Your task to perform on an android device: Clear the cart on amazon. Search for logitech g502 on amazon, select the first entry, add it to the cart, then select checkout. Image 0: 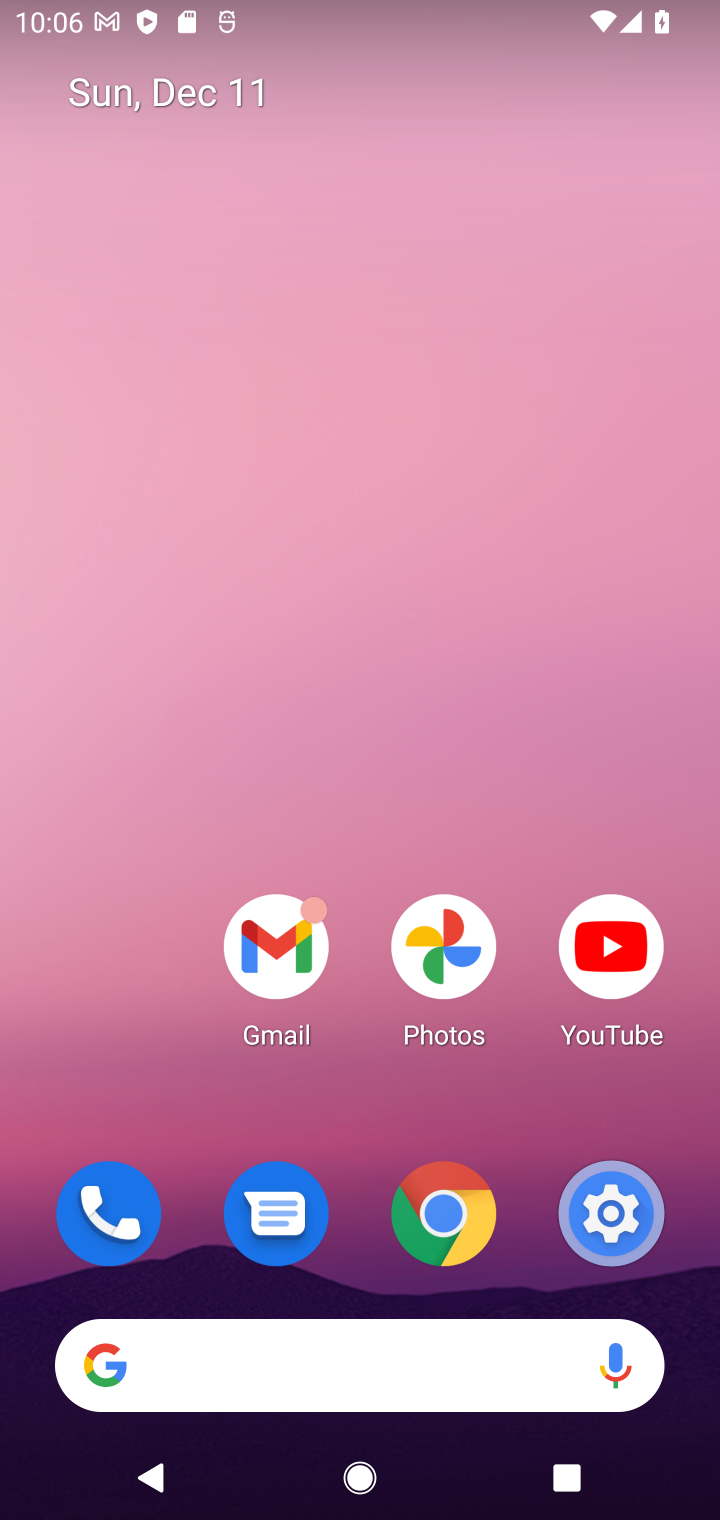
Step 0: click (452, 1391)
Your task to perform on an android device: Clear the cart on amazon. Search for logitech g502 on amazon, select the first entry, add it to the cart, then select checkout. Image 1: 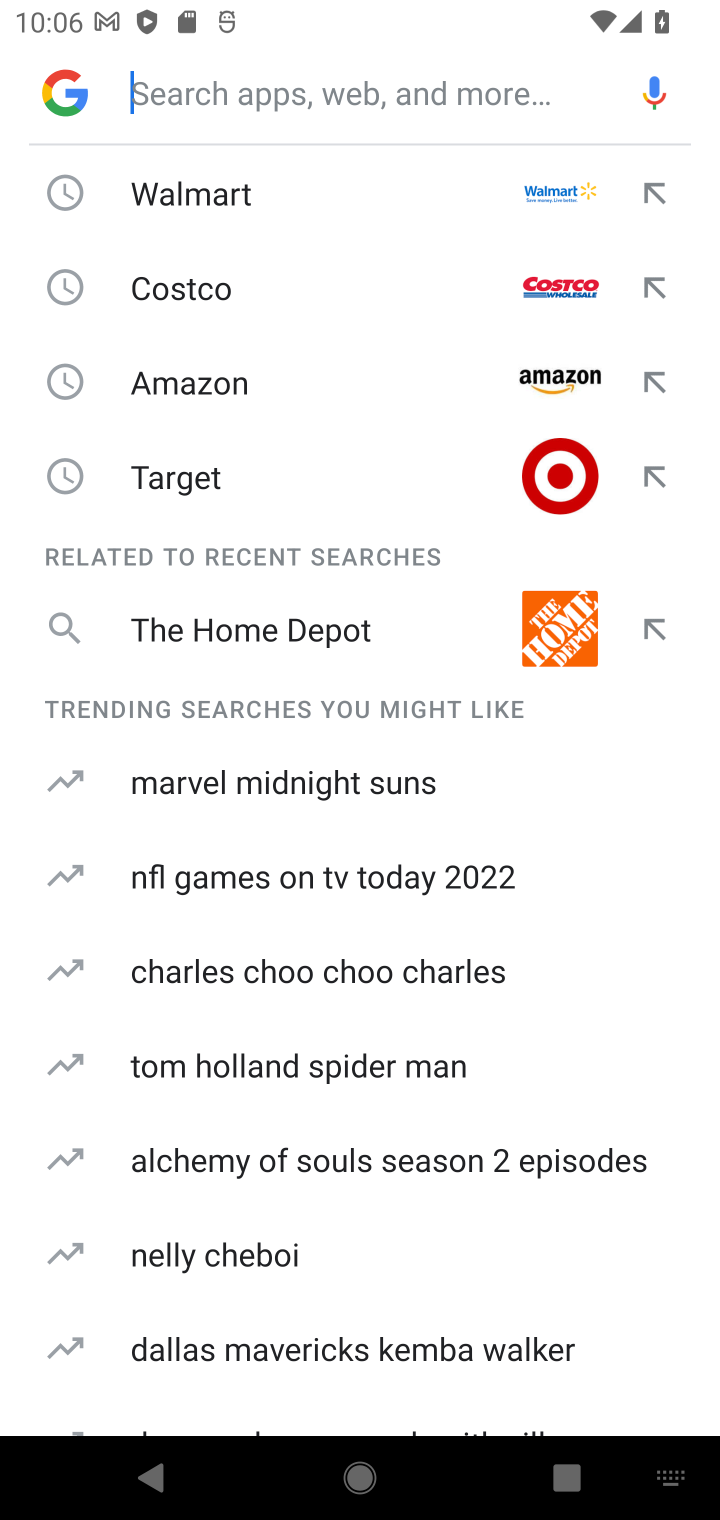
Step 1: click (340, 375)
Your task to perform on an android device: Clear the cart on amazon. Search for logitech g502 on amazon, select the first entry, add it to the cart, then select checkout. Image 2: 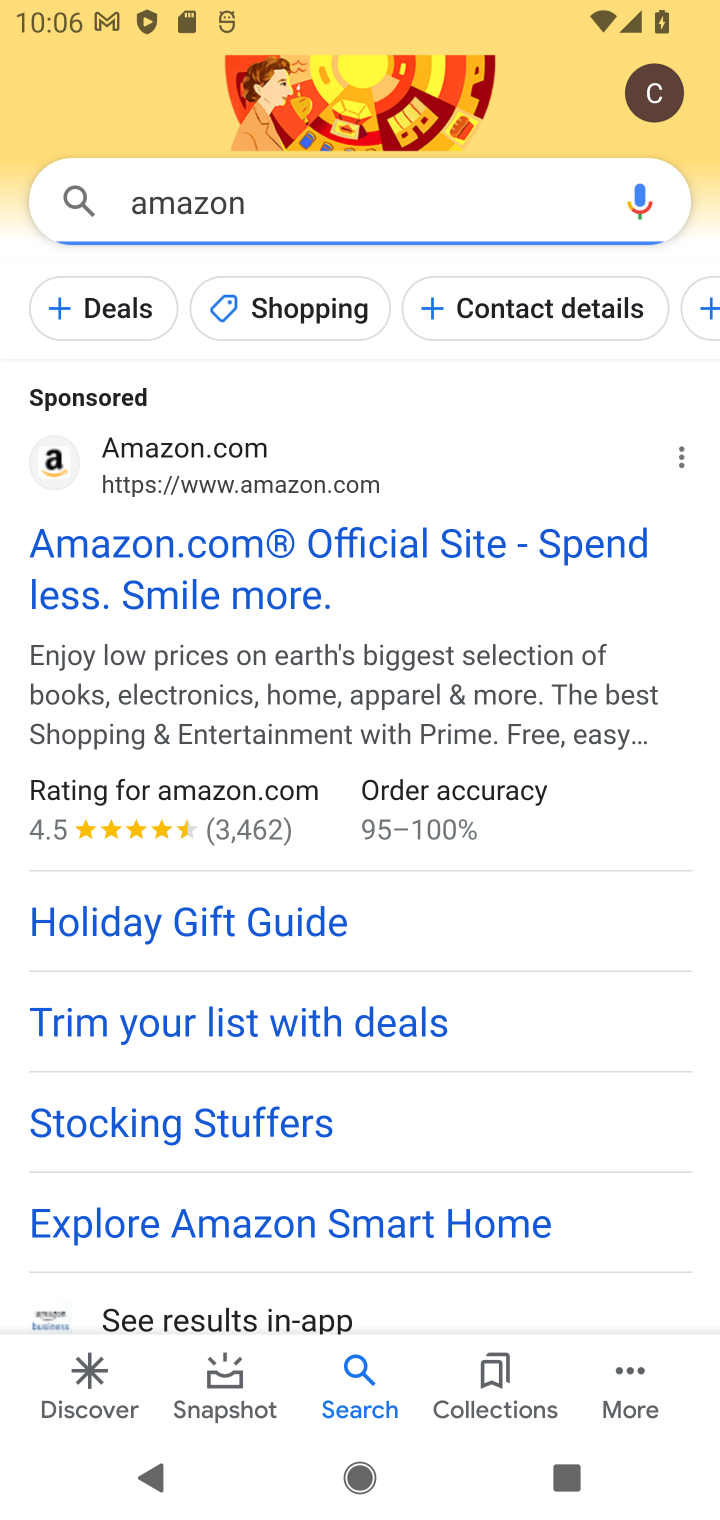
Step 2: click (324, 556)
Your task to perform on an android device: Clear the cart on amazon. Search for logitech g502 on amazon, select the first entry, add it to the cart, then select checkout. Image 3: 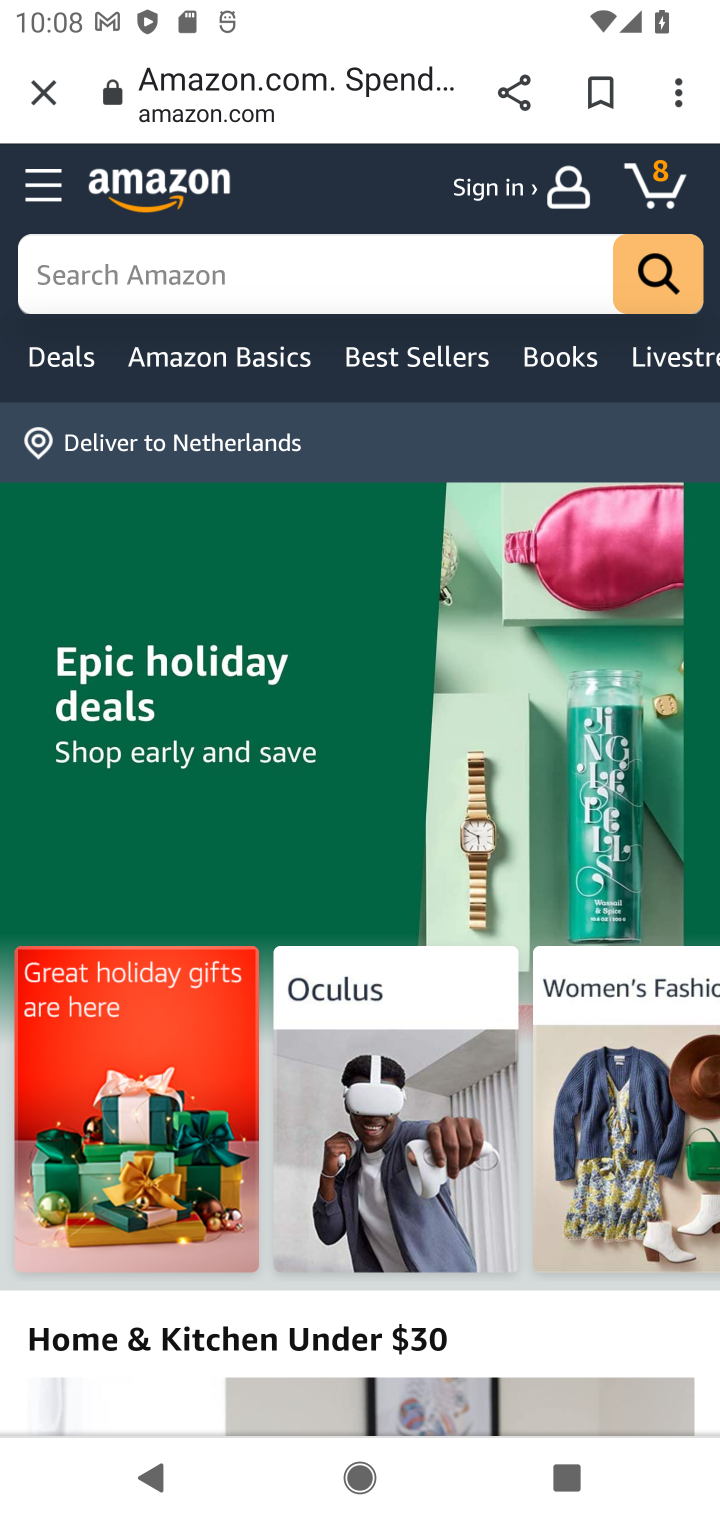
Step 3: click (419, 284)
Your task to perform on an android device: Clear the cart on amazon. Search for logitech g502 on amazon, select the first entry, add it to the cart, then select checkout. Image 4: 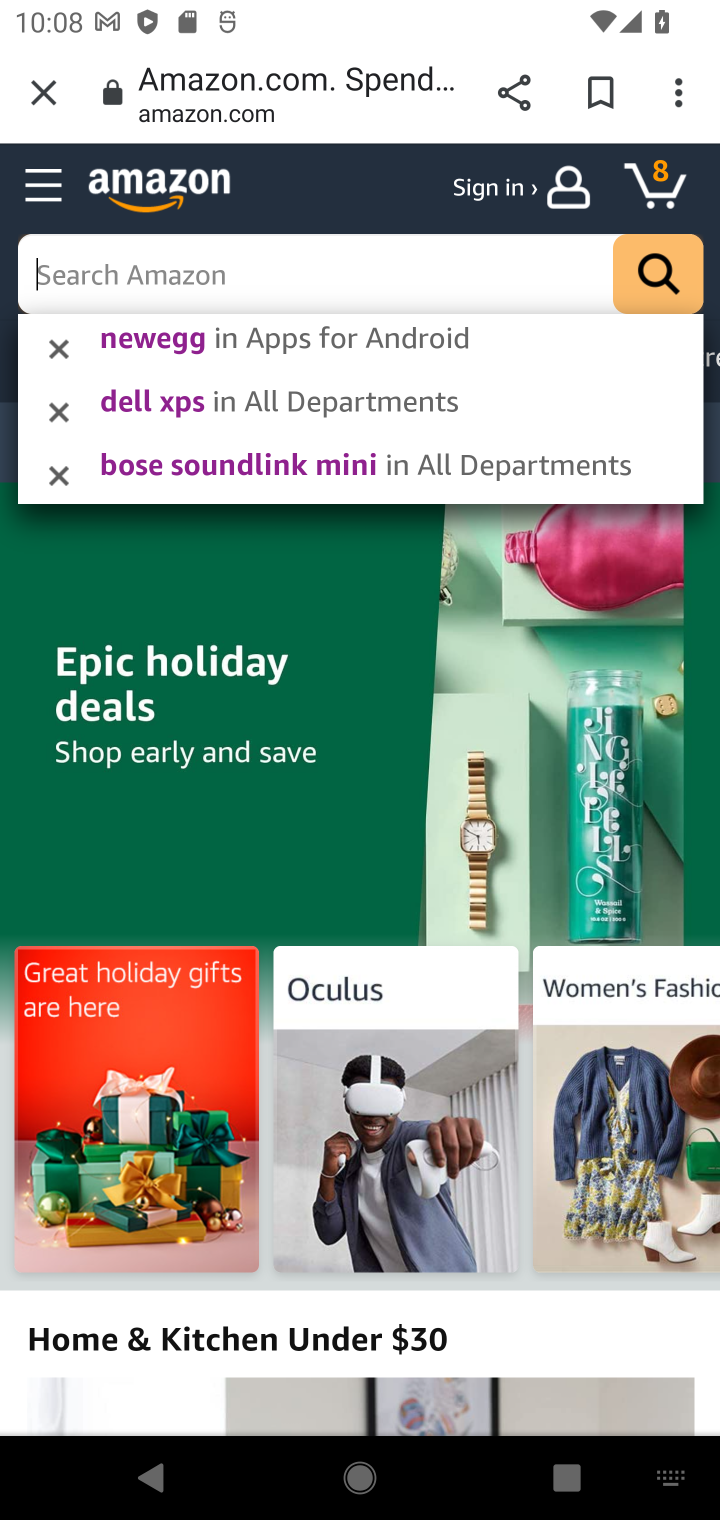
Step 4: type "logiitech g502"
Your task to perform on an android device: Clear the cart on amazon. Search for logitech g502 on amazon, select the first entry, add it to the cart, then select checkout. Image 5: 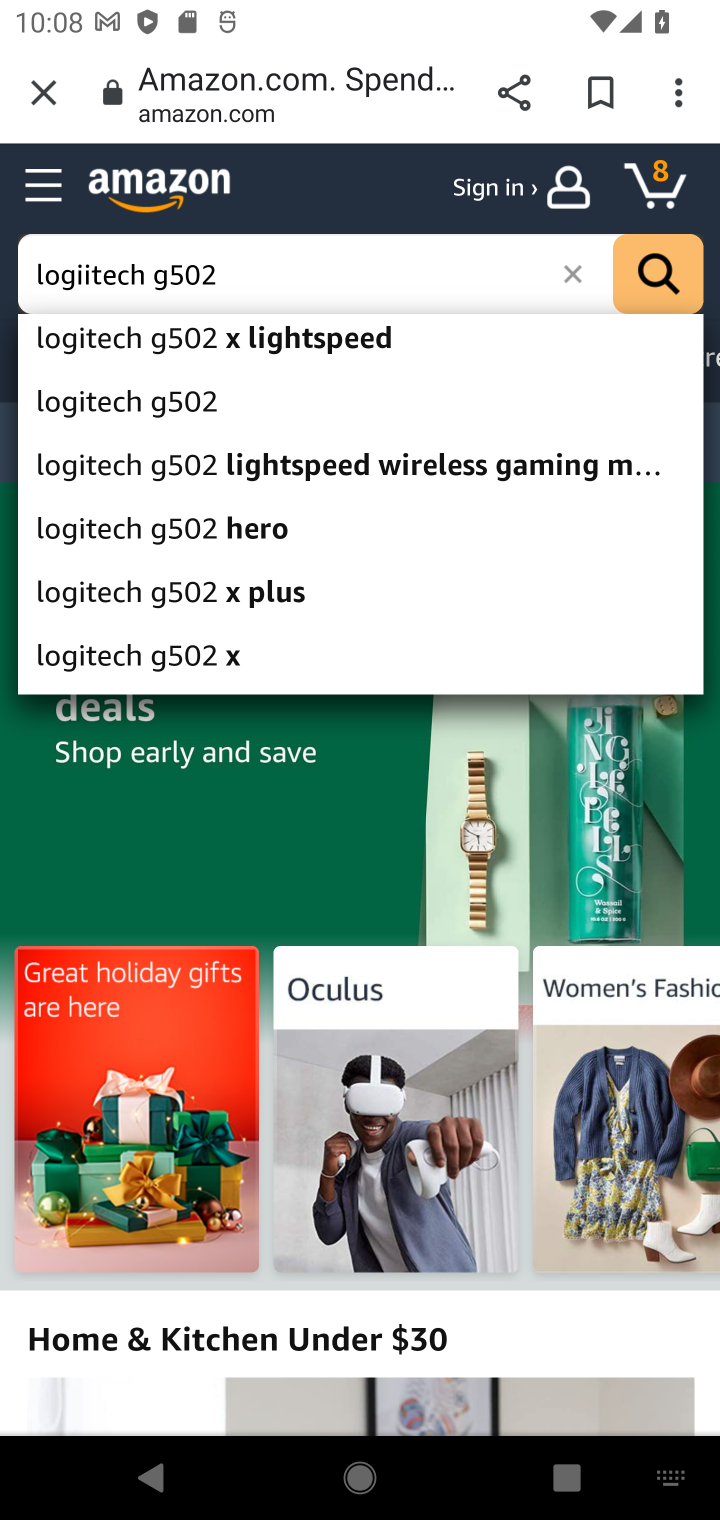
Step 5: click (134, 407)
Your task to perform on an android device: Clear the cart on amazon. Search for logitech g502 on amazon, select the first entry, add it to the cart, then select checkout. Image 6: 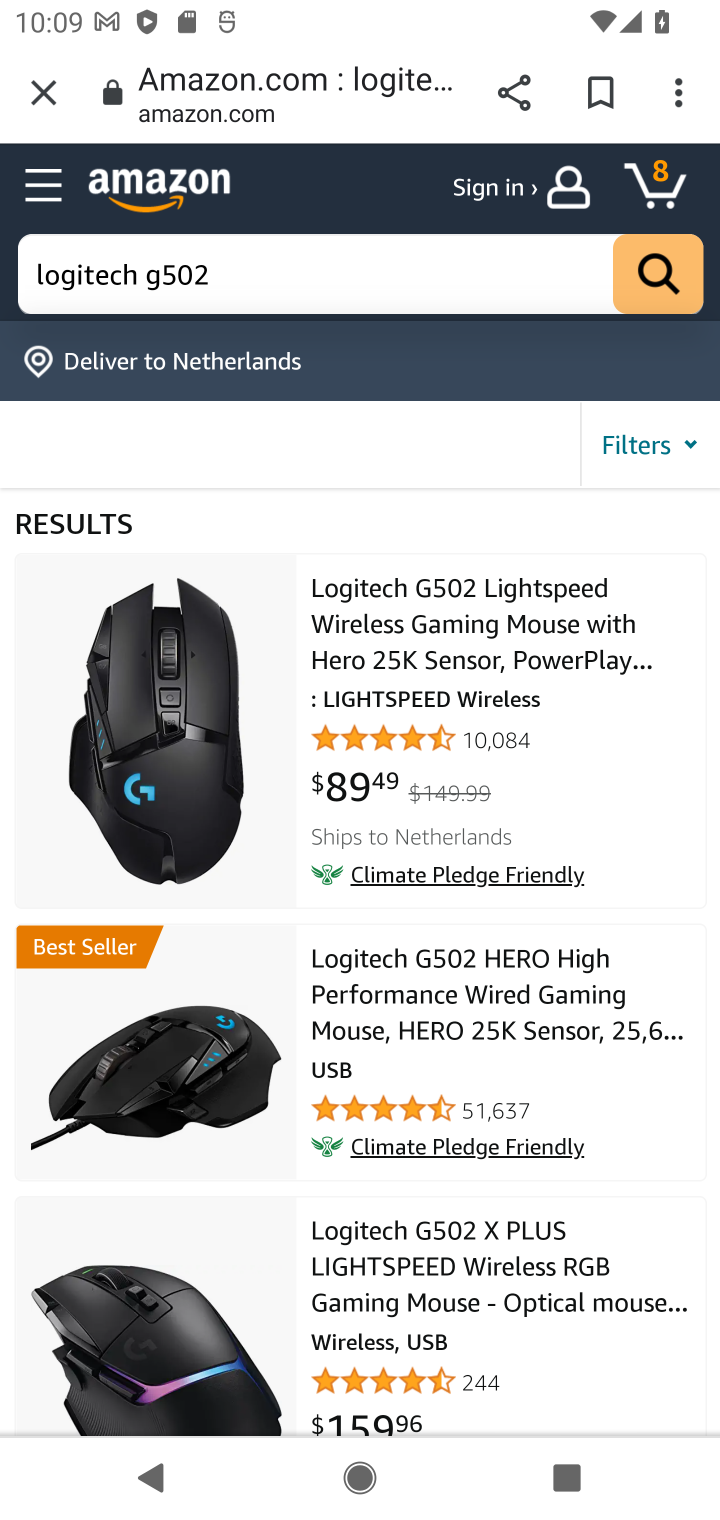
Step 6: click (543, 700)
Your task to perform on an android device: Clear the cart on amazon. Search for logitech g502 on amazon, select the first entry, add it to the cart, then select checkout. Image 7: 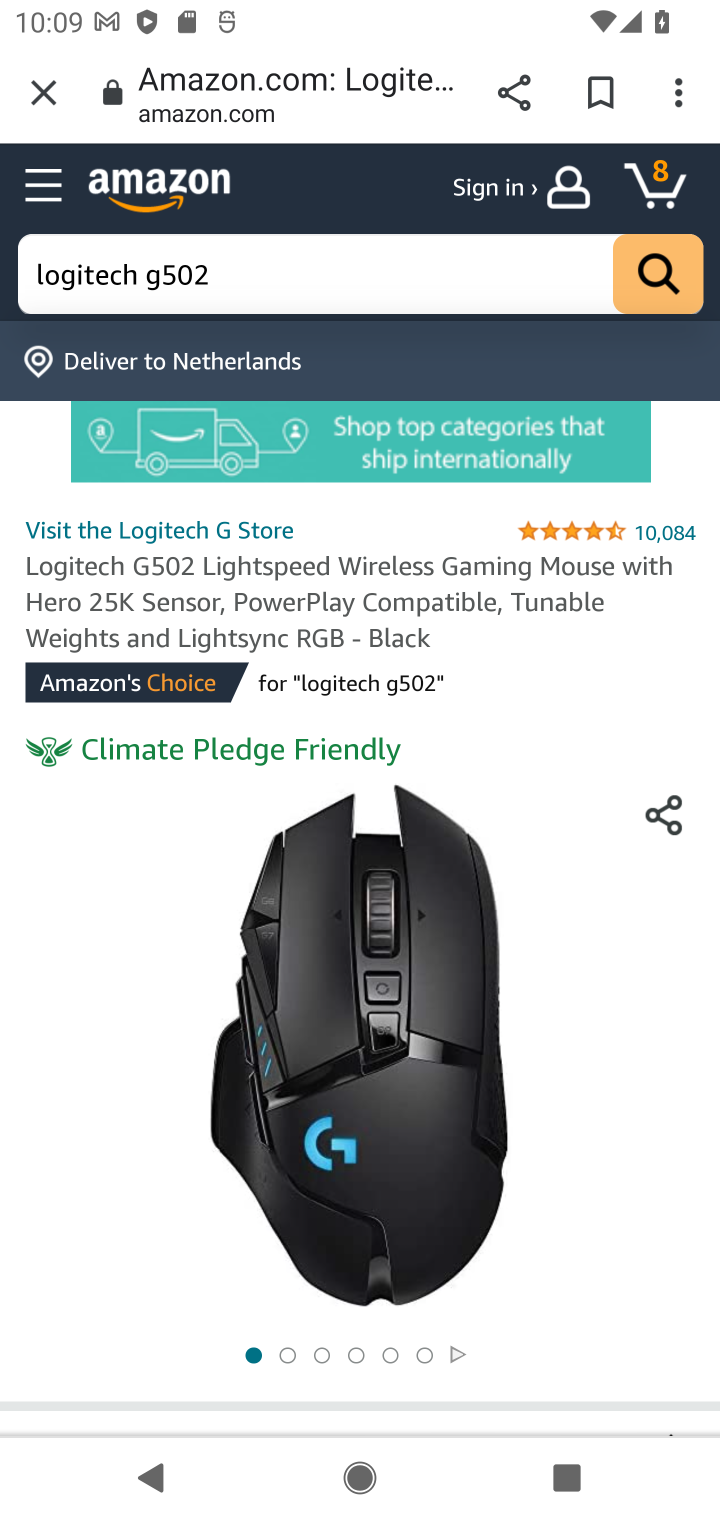
Step 7: drag from (339, 1078) to (228, 88)
Your task to perform on an android device: Clear the cart on amazon. Search for logitech g502 on amazon, select the first entry, add it to the cart, then select checkout. Image 8: 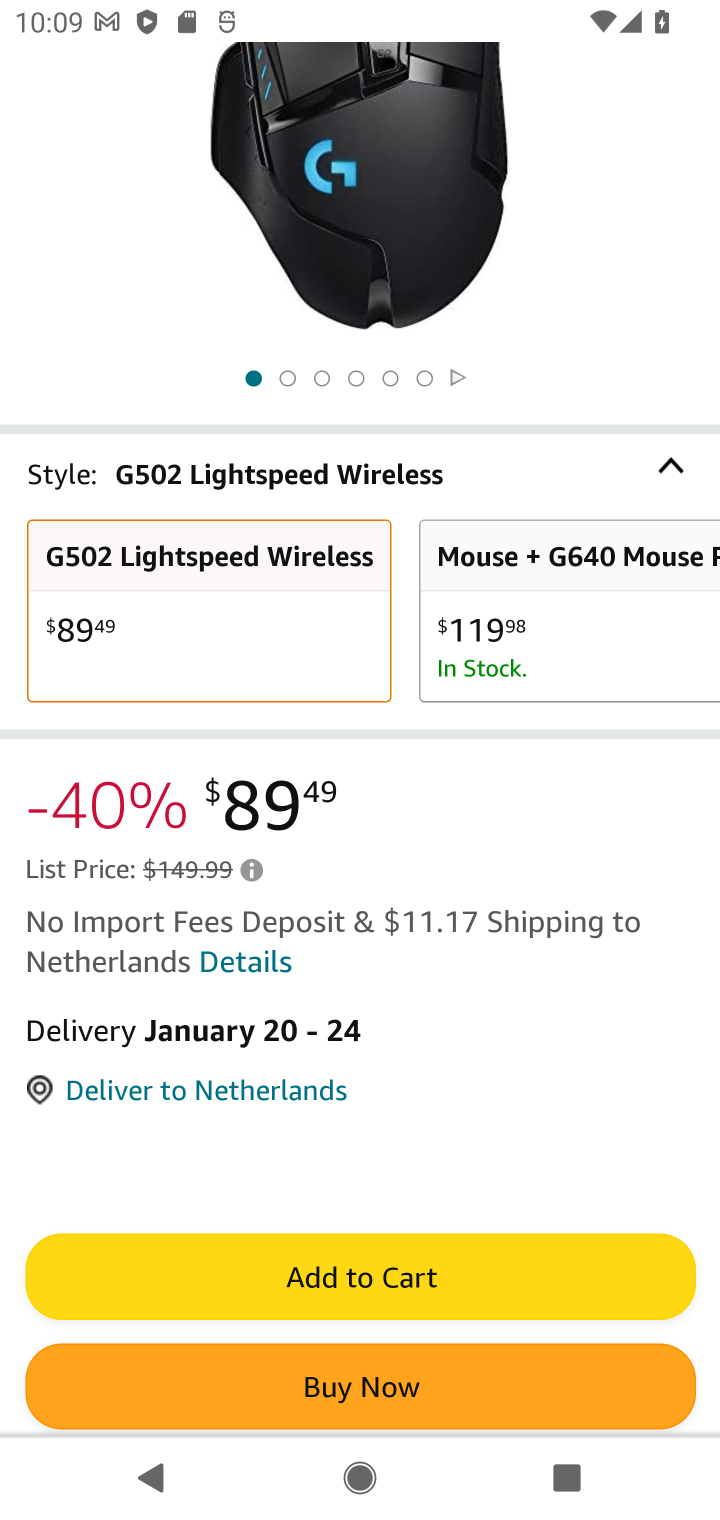
Step 8: click (364, 1289)
Your task to perform on an android device: Clear the cart on amazon. Search for logitech g502 on amazon, select the first entry, add it to the cart, then select checkout. Image 9: 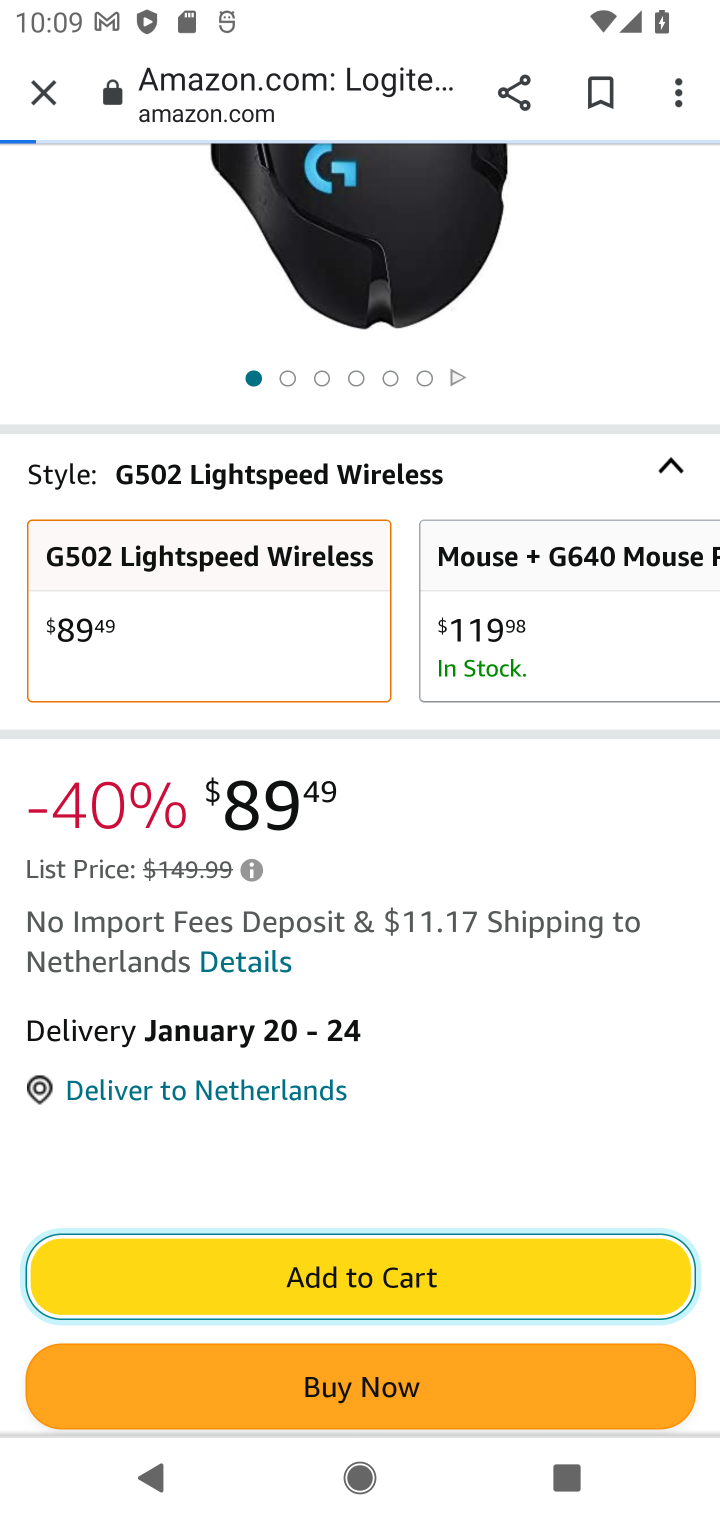
Step 9: task complete